Your task to perform on an android device: move an email to a new category in the gmail app Image 0: 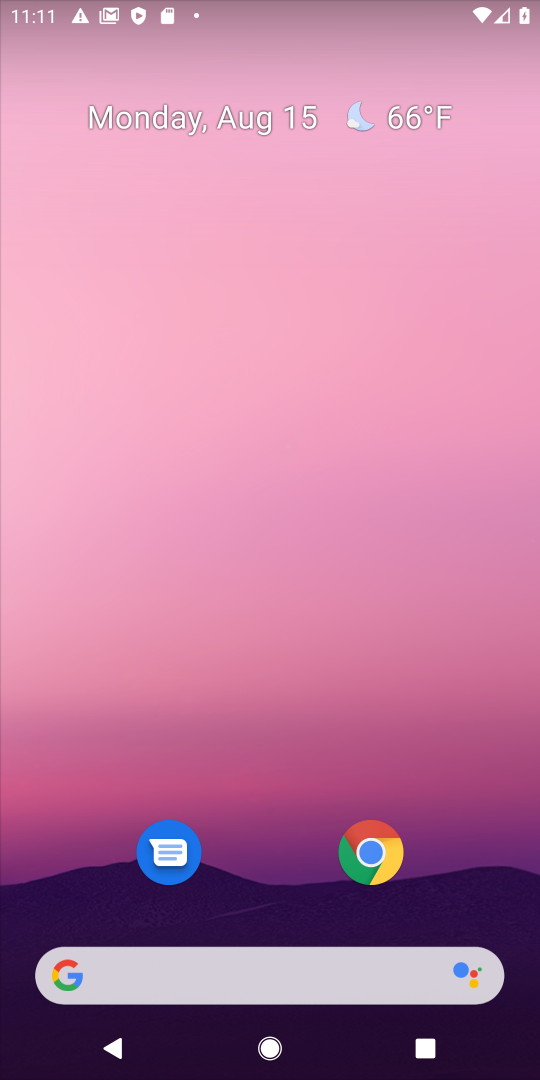
Step 0: drag from (286, 613) to (292, 133)
Your task to perform on an android device: move an email to a new category in the gmail app Image 1: 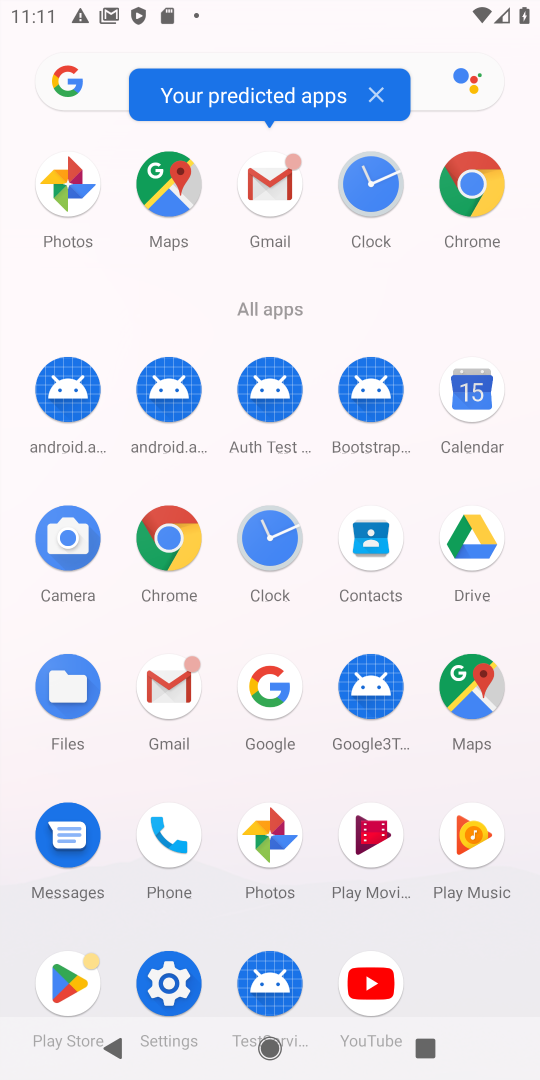
Step 1: click (267, 184)
Your task to perform on an android device: move an email to a new category in the gmail app Image 2: 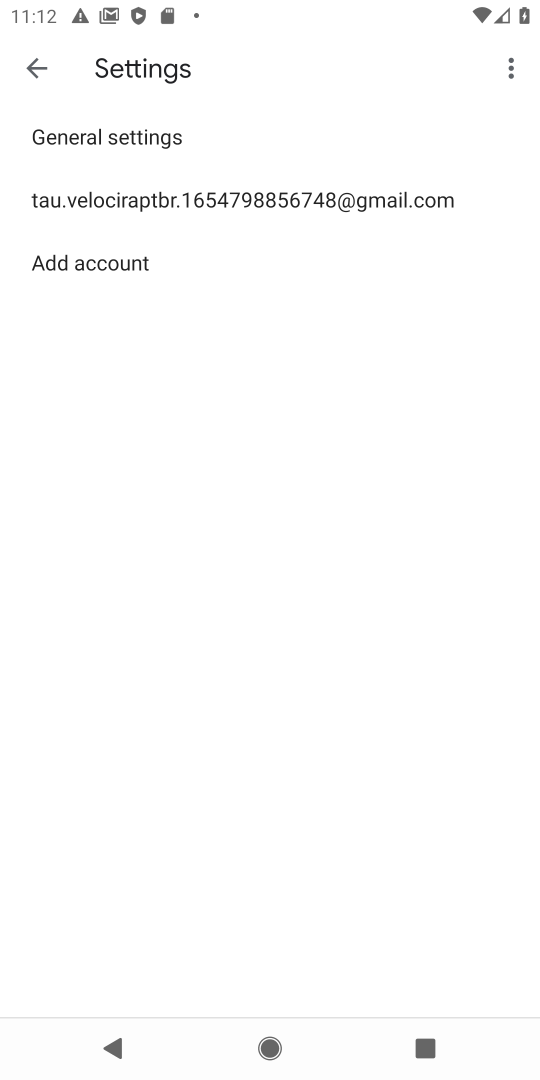
Step 2: click (230, 211)
Your task to perform on an android device: move an email to a new category in the gmail app Image 3: 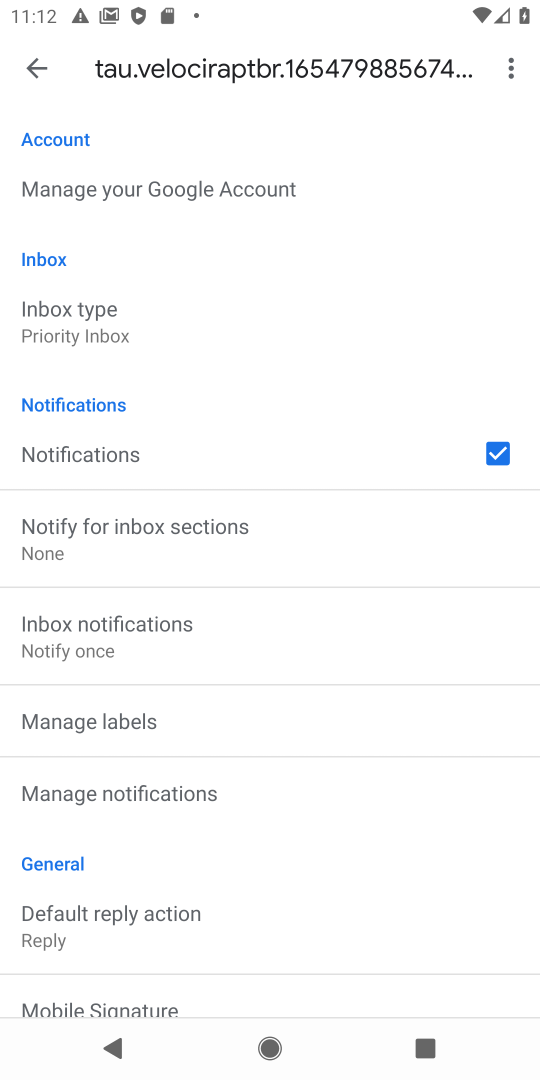
Step 3: press back button
Your task to perform on an android device: move an email to a new category in the gmail app Image 4: 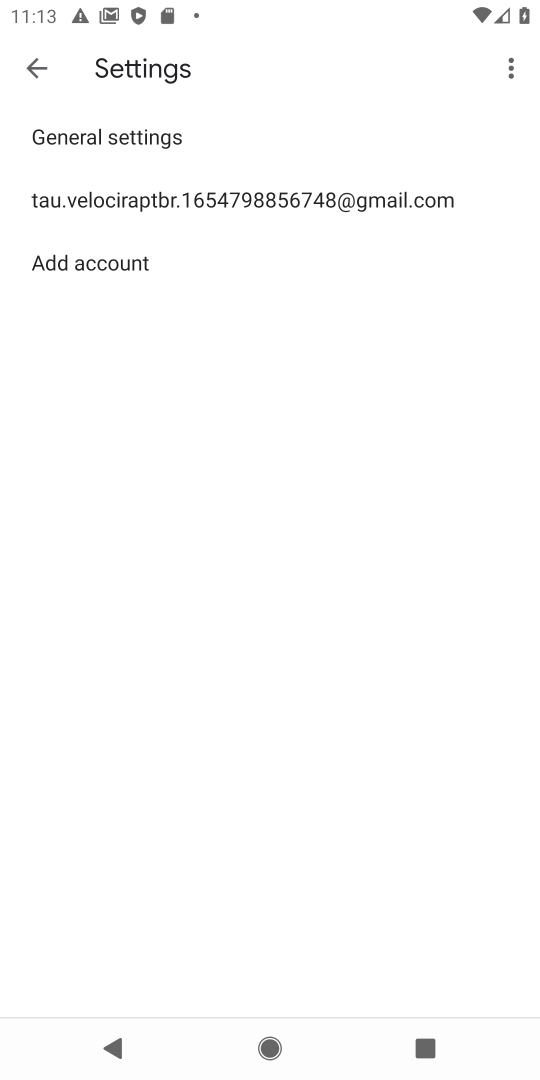
Step 4: press back button
Your task to perform on an android device: move an email to a new category in the gmail app Image 5: 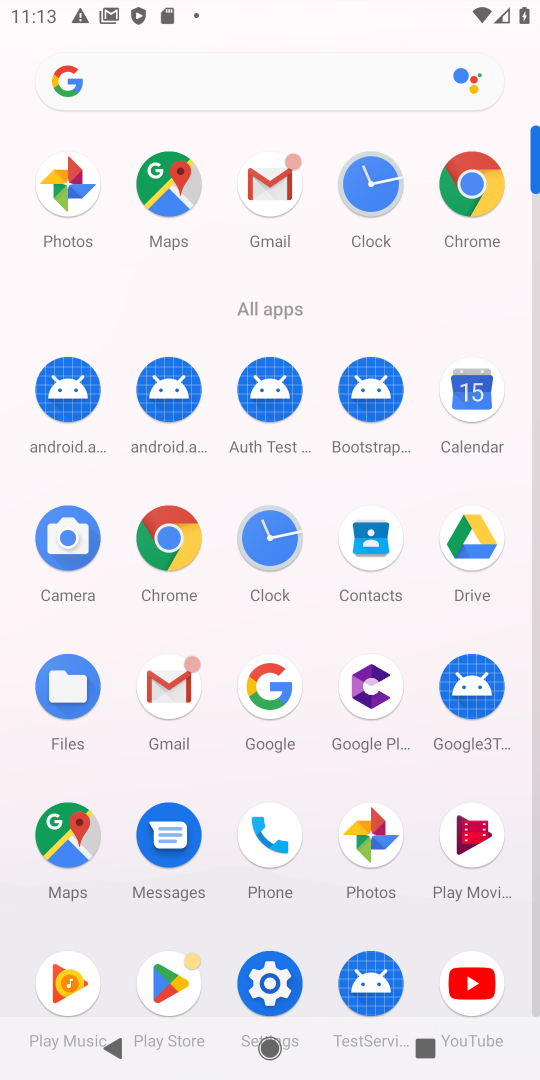
Step 5: click (263, 166)
Your task to perform on an android device: move an email to a new category in the gmail app Image 6: 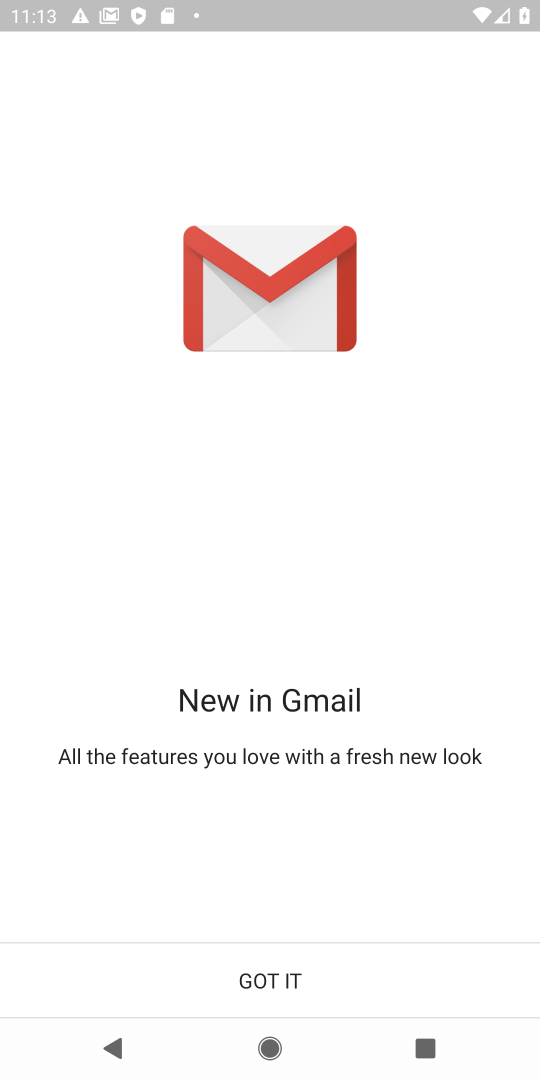
Step 6: click (283, 969)
Your task to perform on an android device: move an email to a new category in the gmail app Image 7: 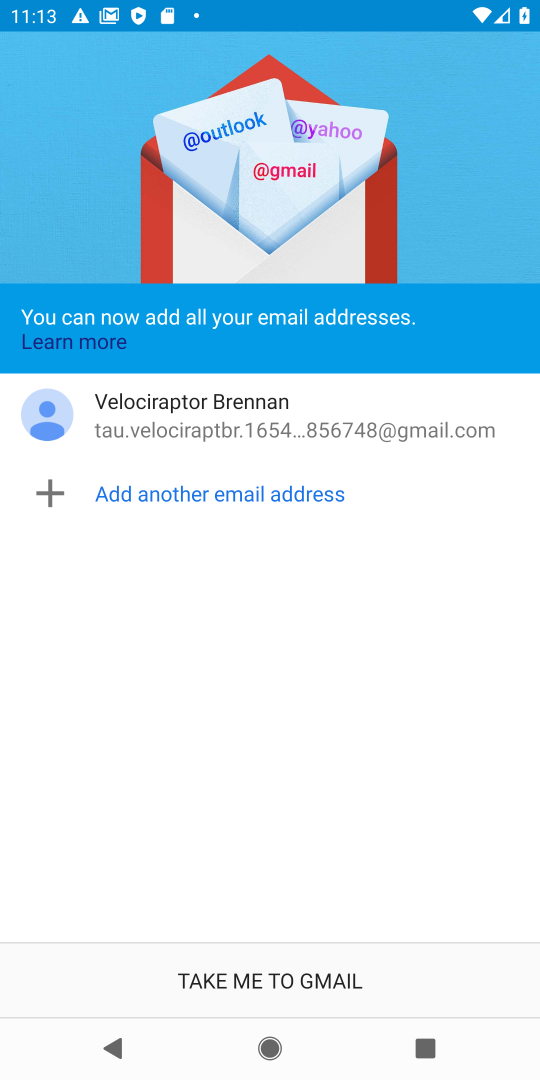
Step 7: click (294, 977)
Your task to perform on an android device: move an email to a new category in the gmail app Image 8: 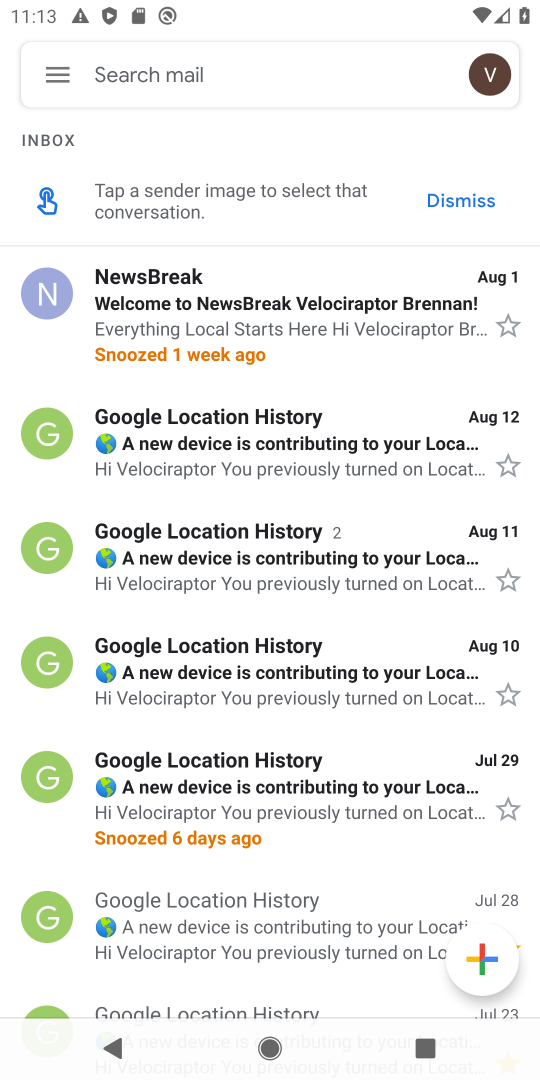
Step 8: click (270, 301)
Your task to perform on an android device: move an email to a new category in the gmail app Image 9: 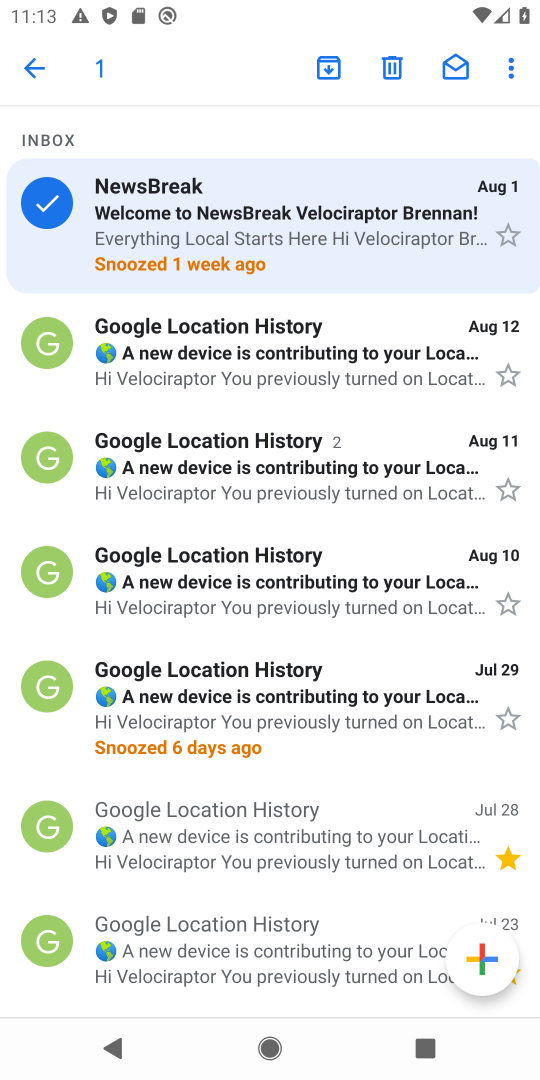
Step 9: click (512, 69)
Your task to perform on an android device: move an email to a new category in the gmail app Image 10: 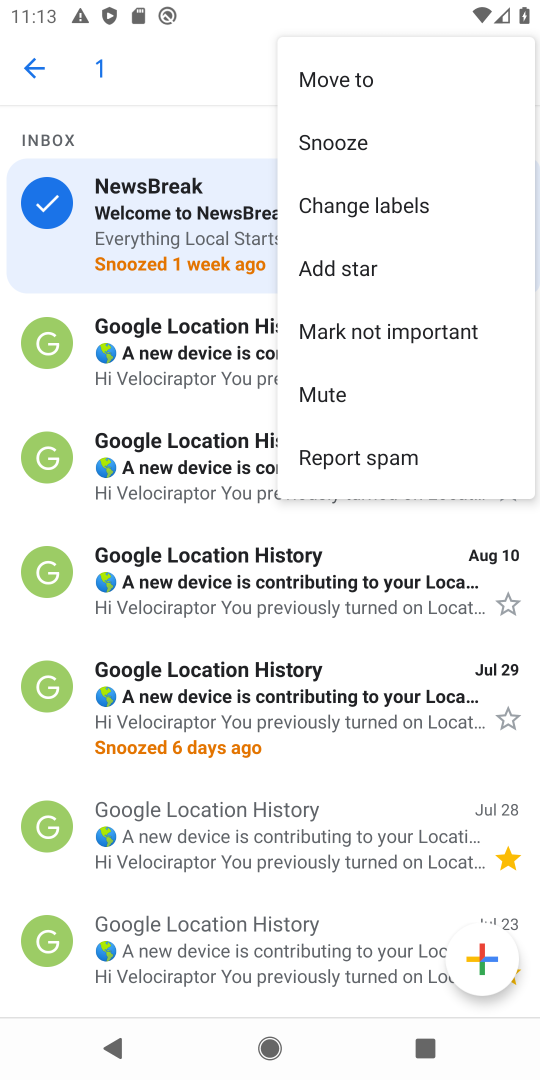
Step 10: click (364, 83)
Your task to perform on an android device: move an email to a new category in the gmail app Image 11: 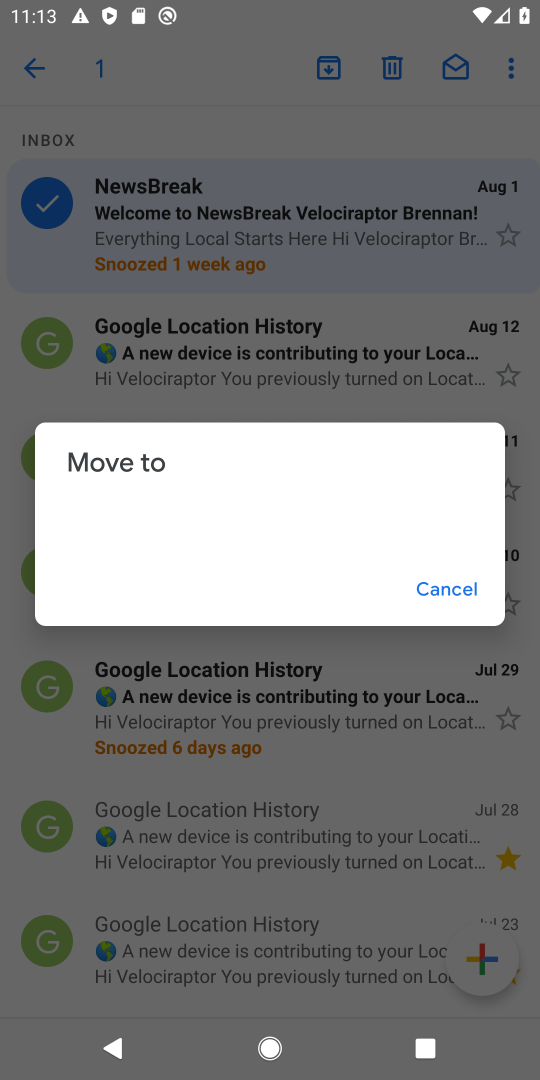
Step 11: task complete